Your task to perform on an android device: Open calendar and show me the first week of next month Image 0: 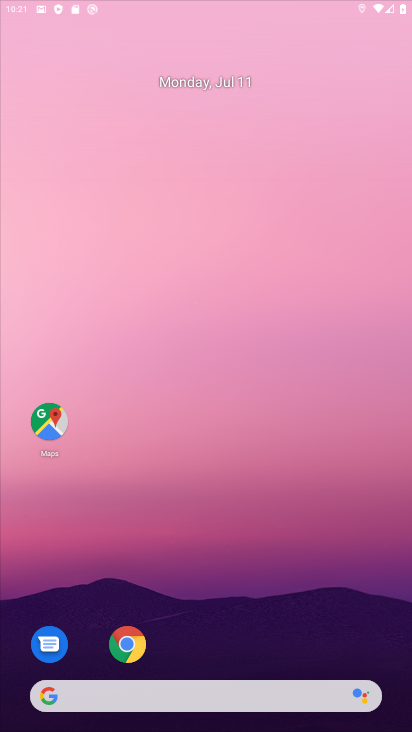
Step 0: click (204, 194)
Your task to perform on an android device: Open calendar and show me the first week of next month Image 1: 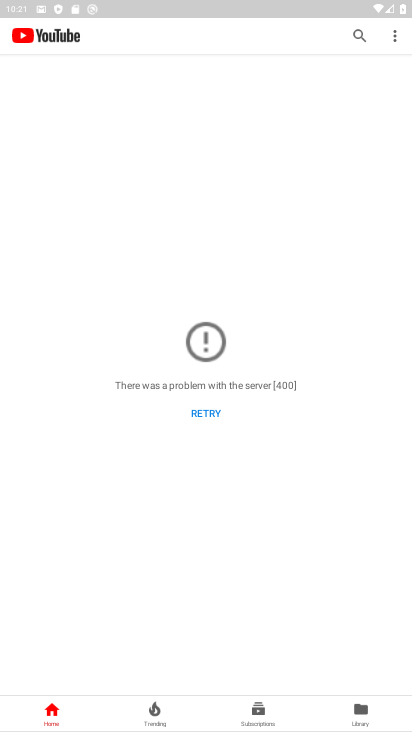
Step 1: press home button
Your task to perform on an android device: Open calendar and show me the first week of next month Image 2: 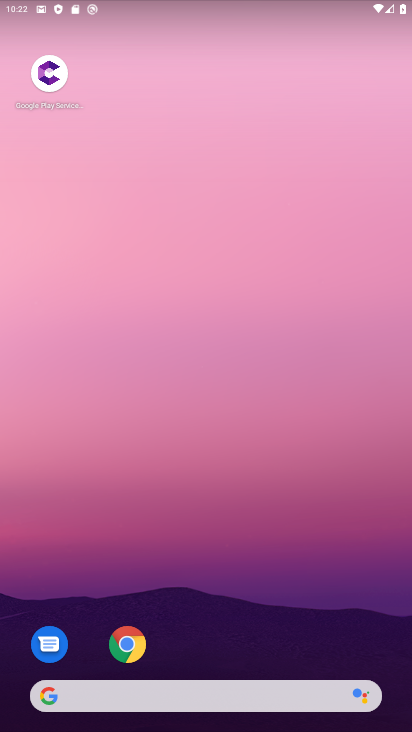
Step 2: drag from (255, 628) to (261, 349)
Your task to perform on an android device: Open calendar and show me the first week of next month Image 3: 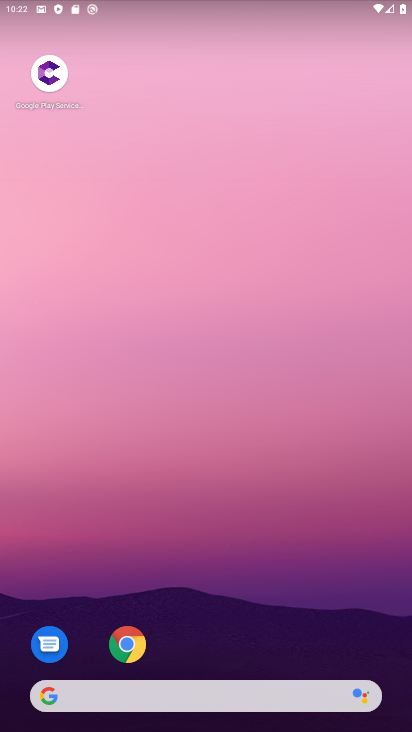
Step 3: drag from (270, 542) to (270, 230)
Your task to perform on an android device: Open calendar and show me the first week of next month Image 4: 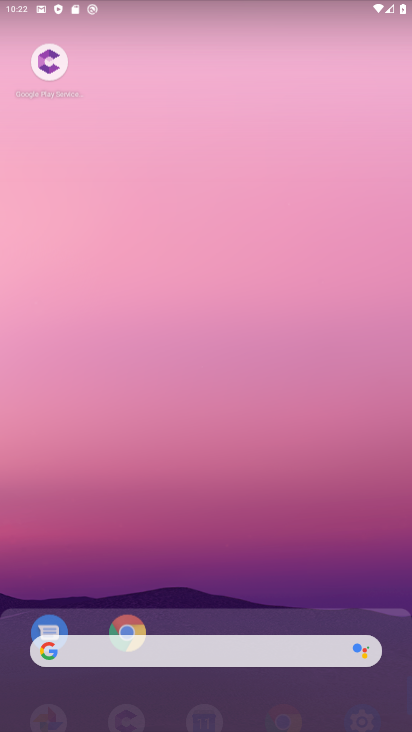
Step 4: click (262, 180)
Your task to perform on an android device: Open calendar and show me the first week of next month Image 5: 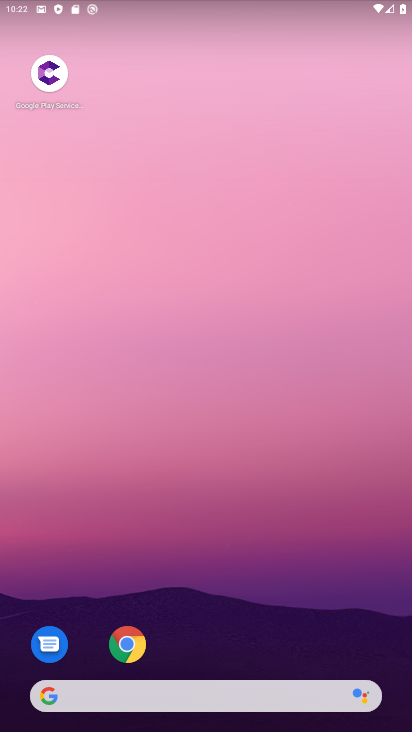
Step 5: drag from (251, 633) to (243, 122)
Your task to perform on an android device: Open calendar and show me the first week of next month Image 6: 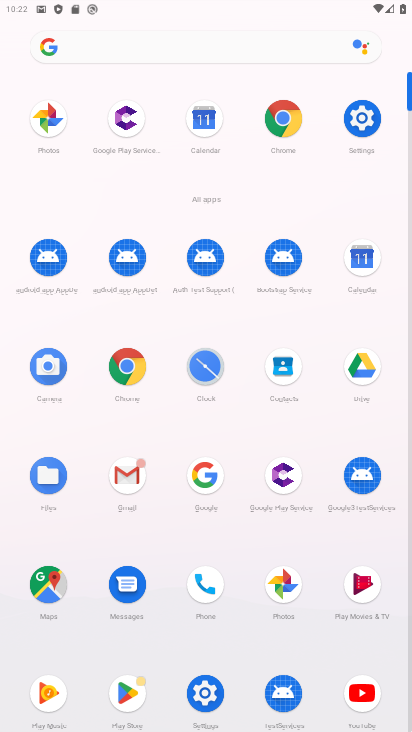
Step 6: click (350, 253)
Your task to perform on an android device: Open calendar and show me the first week of next month Image 7: 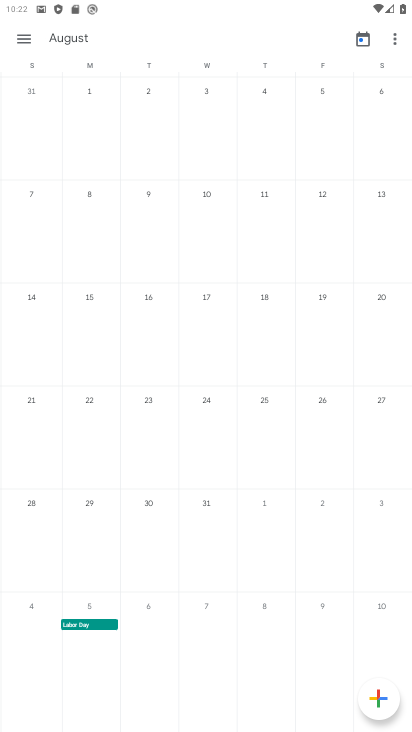
Step 7: task complete